Your task to perform on an android device: Open Chrome and go to the settings page Image 0: 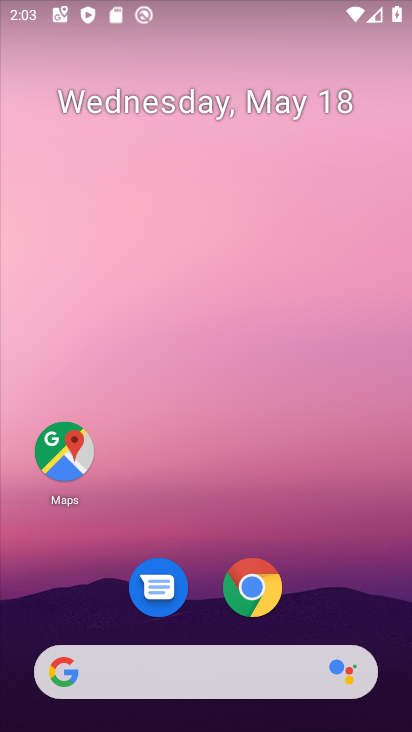
Step 0: click (252, 596)
Your task to perform on an android device: Open Chrome and go to the settings page Image 1: 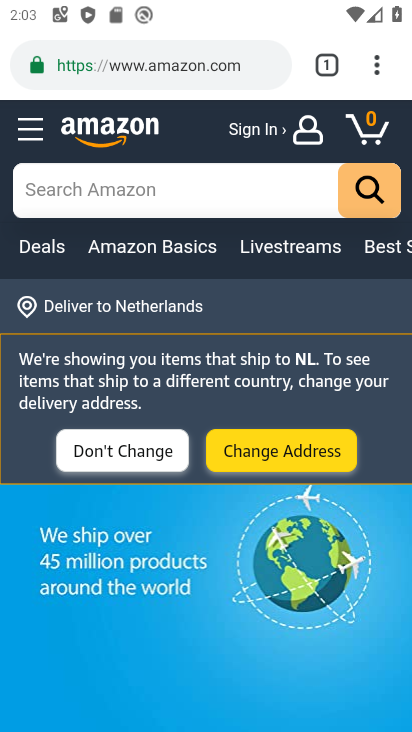
Step 1: click (374, 65)
Your task to perform on an android device: Open Chrome and go to the settings page Image 2: 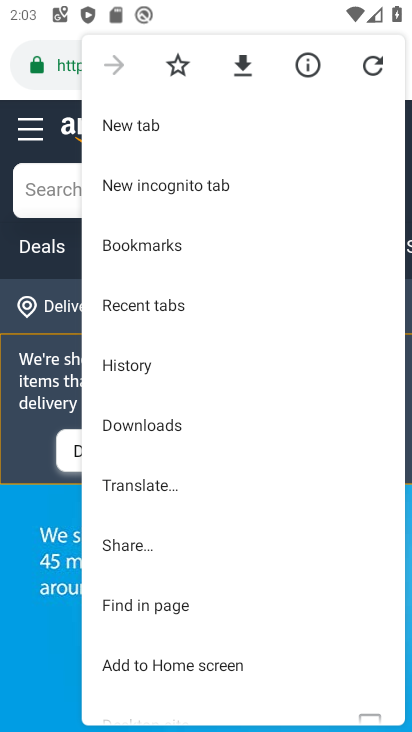
Step 2: drag from (311, 604) to (309, 374)
Your task to perform on an android device: Open Chrome and go to the settings page Image 3: 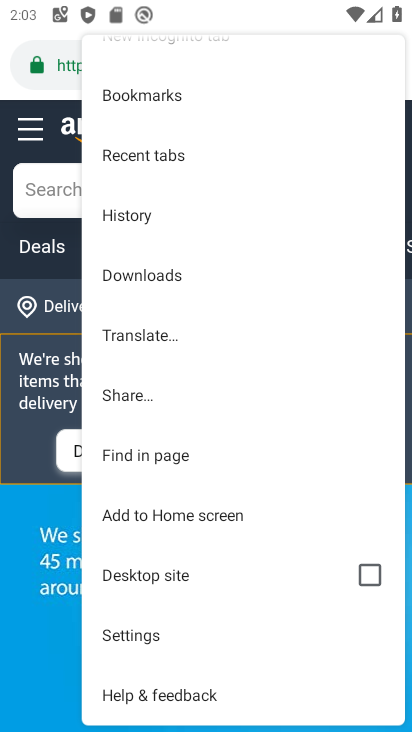
Step 3: click (135, 635)
Your task to perform on an android device: Open Chrome and go to the settings page Image 4: 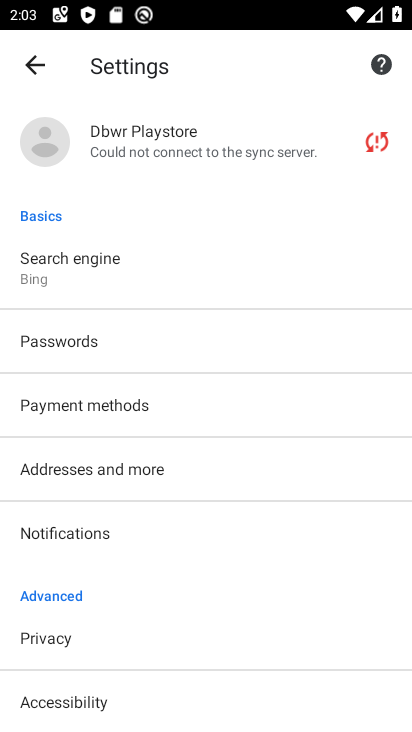
Step 4: task complete